Your task to perform on an android device: toggle translation in the chrome app Image 0: 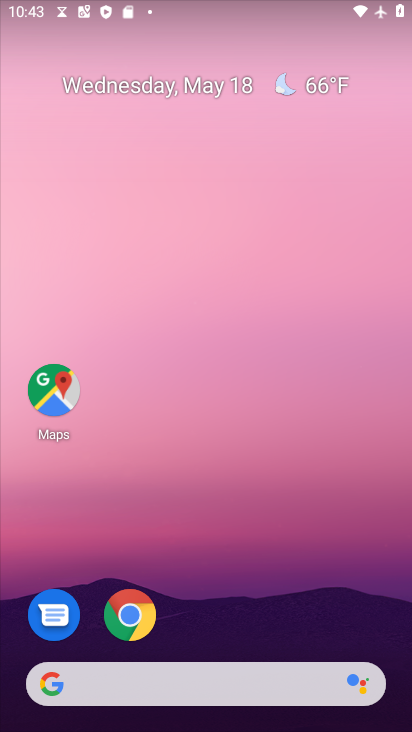
Step 0: drag from (243, 475) to (178, 30)
Your task to perform on an android device: toggle translation in the chrome app Image 1: 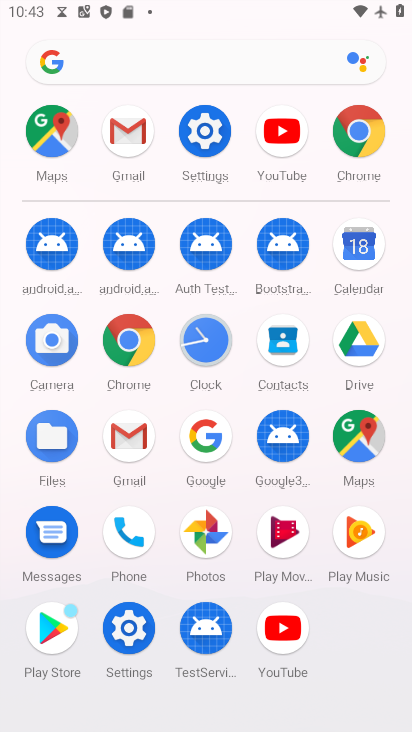
Step 1: drag from (11, 553) to (13, 288)
Your task to perform on an android device: toggle translation in the chrome app Image 2: 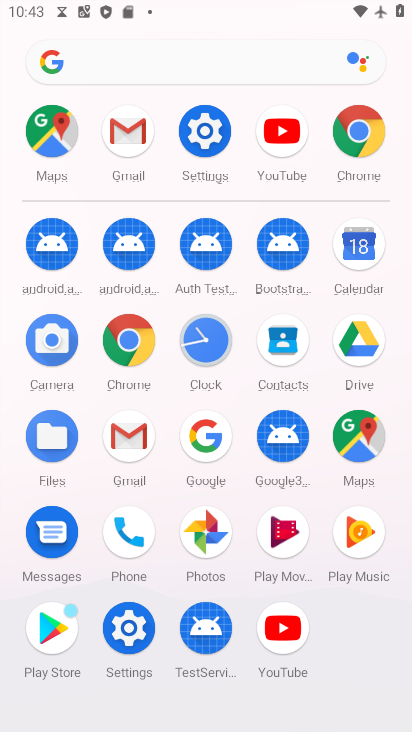
Step 2: click (127, 335)
Your task to perform on an android device: toggle translation in the chrome app Image 3: 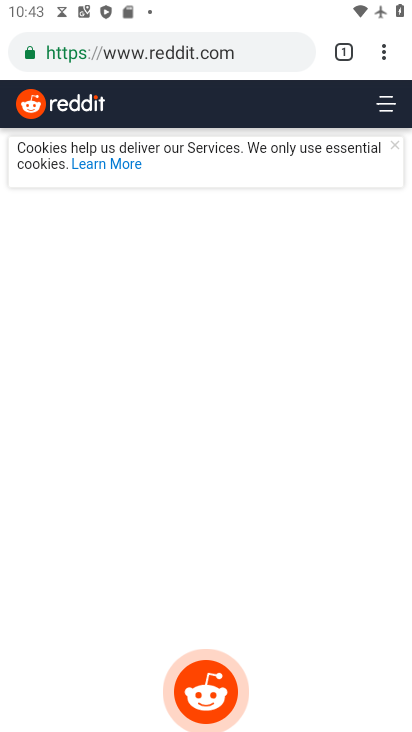
Step 3: drag from (382, 50) to (217, 621)
Your task to perform on an android device: toggle translation in the chrome app Image 4: 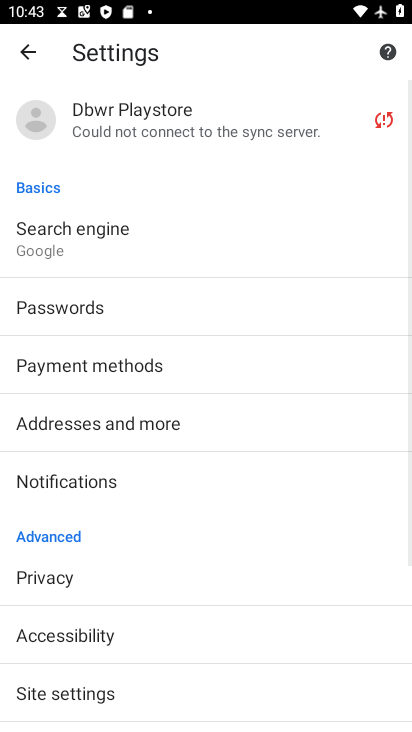
Step 4: drag from (226, 599) to (225, 160)
Your task to perform on an android device: toggle translation in the chrome app Image 5: 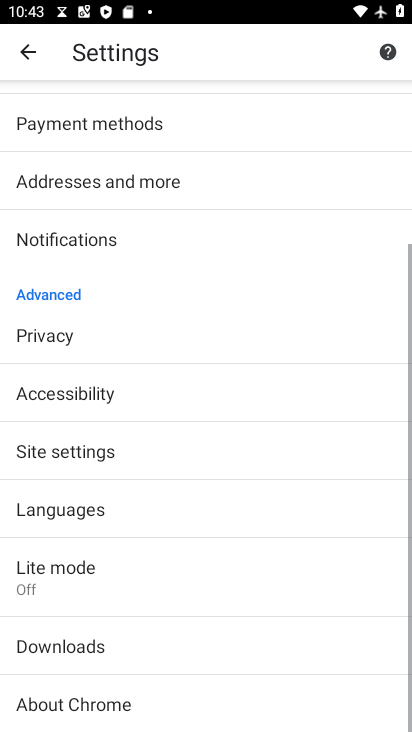
Step 5: drag from (213, 574) to (218, 228)
Your task to perform on an android device: toggle translation in the chrome app Image 6: 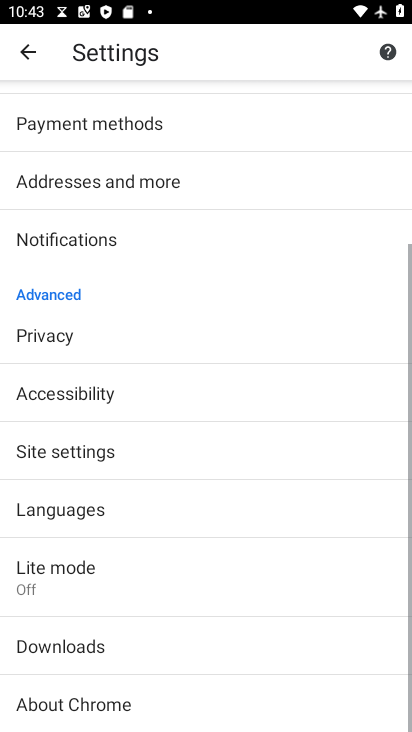
Step 6: click (104, 496)
Your task to perform on an android device: toggle translation in the chrome app Image 7: 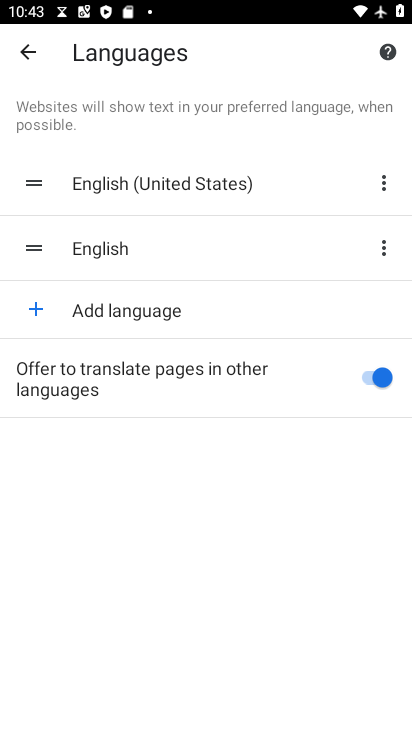
Step 7: click (368, 374)
Your task to perform on an android device: toggle translation in the chrome app Image 8: 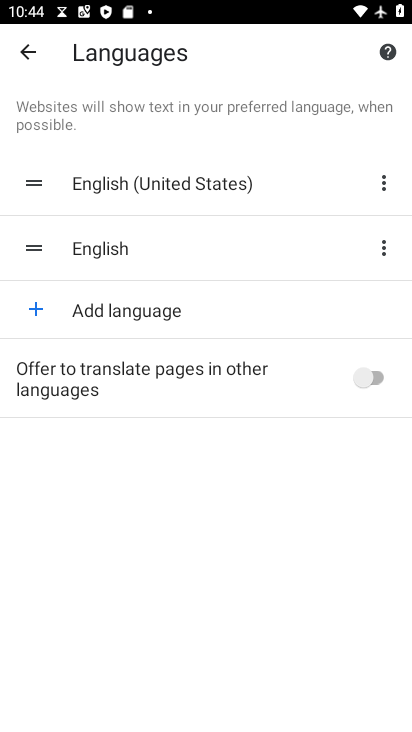
Step 8: task complete